Your task to perform on an android device: See recent photos Image 0: 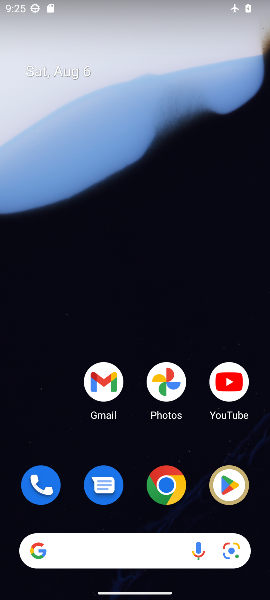
Step 0: drag from (194, 432) to (193, 26)
Your task to perform on an android device: See recent photos Image 1: 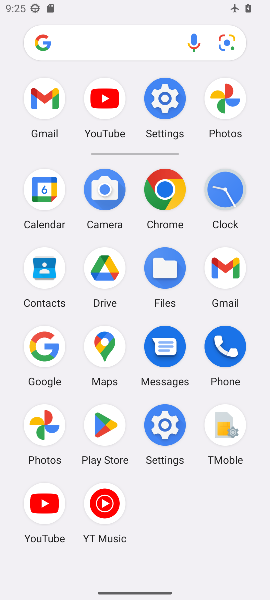
Step 1: click (53, 423)
Your task to perform on an android device: See recent photos Image 2: 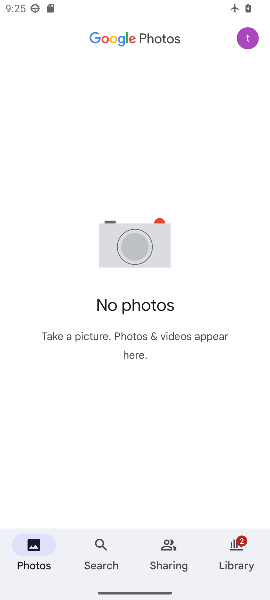
Step 2: task complete